Your task to perform on an android device: Open Youtube and go to the subscriptions tab Image 0: 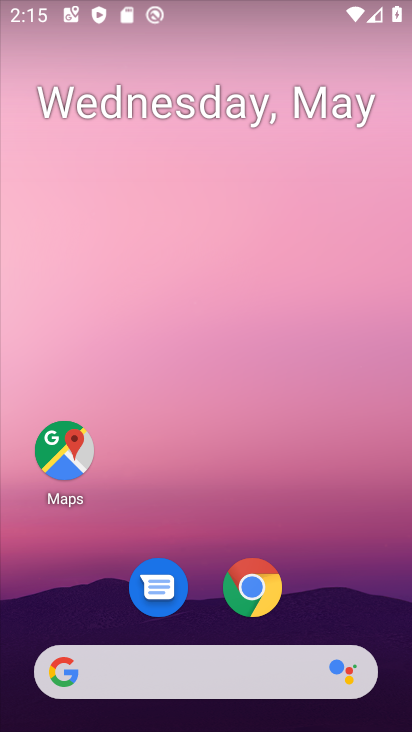
Step 0: drag from (368, 621) to (294, 8)
Your task to perform on an android device: Open Youtube and go to the subscriptions tab Image 1: 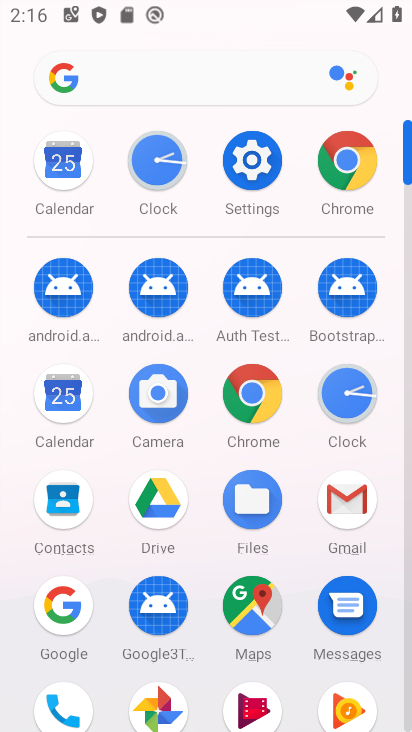
Step 1: drag from (197, 571) to (207, 31)
Your task to perform on an android device: Open Youtube and go to the subscriptions tab Image 2: 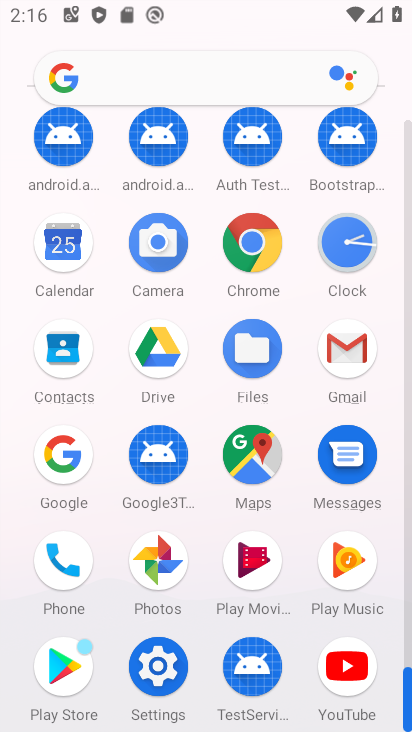
Step 2: click (340, 669)
Your task to perform on an android device: Open Youtube and go to the subscriptions tab Image 3: 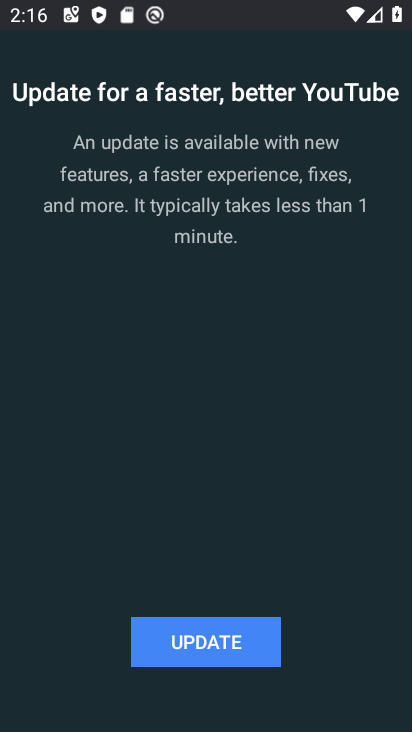
Step 3: click (242, 667)
Your task to perform on an android device: Open Youtube and go to the subscriptions tab Image 4: 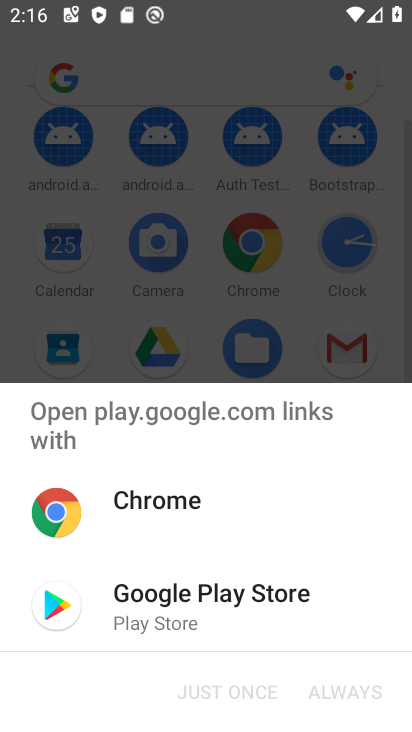
Step 4: click (261, 609)
Your task to perform on an android device: Open Youtube and go to the subscriptions tab Image 5: 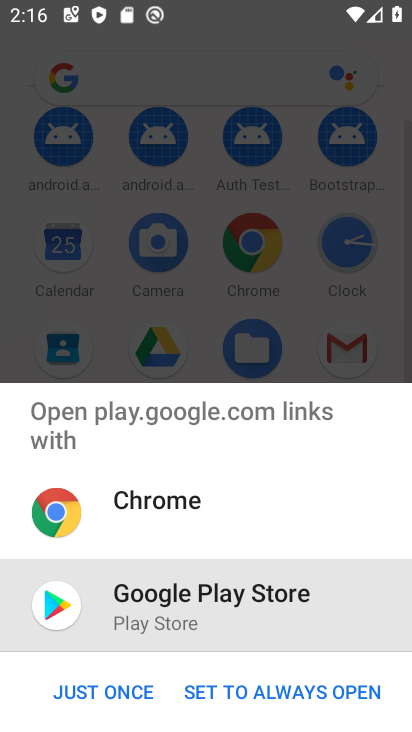
Step 5: click (124, 689)
Your task to perform on an android device: Open Youtube and go to the subscriptions tab Image 6: 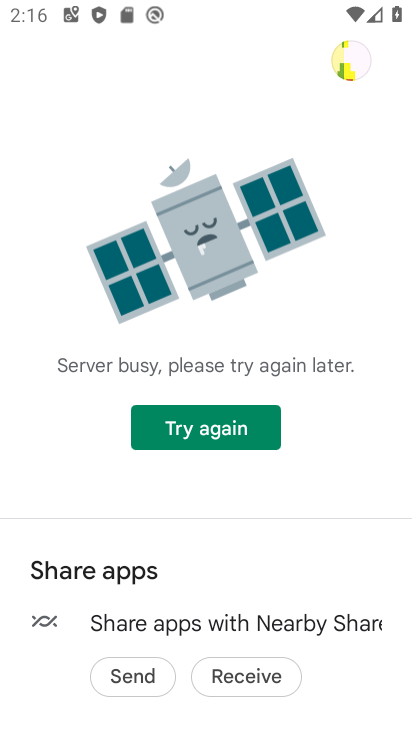
Step 6: click (226, 416)
Your task to perform on an android device: Open Youtube and go to the subscriptions tab Image 7: 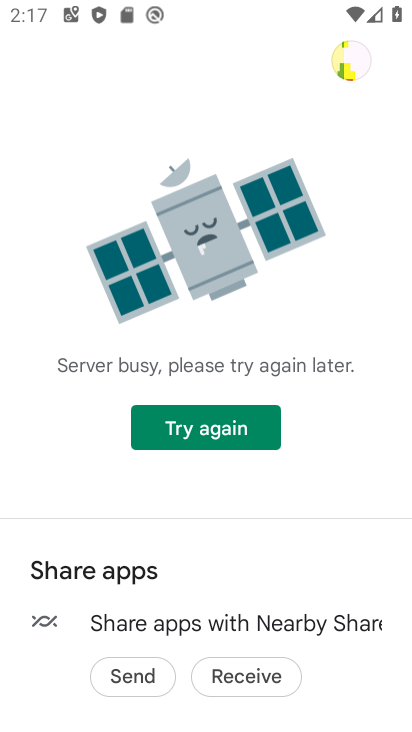
Step 7: click (248, 411)
Your task to perform on an android device: Open Youtube and go to the subscriptions tab Image 8: 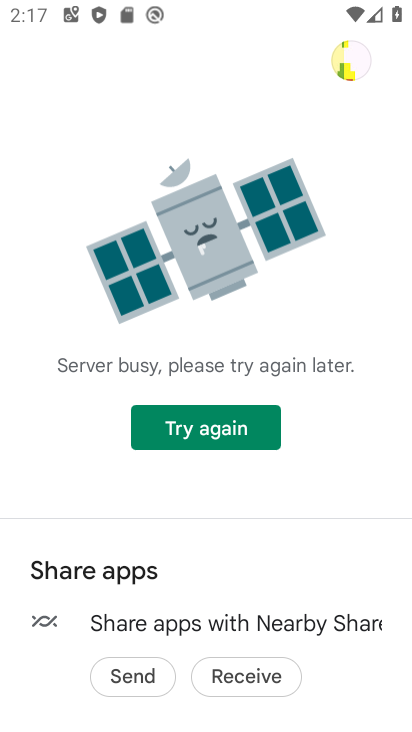
Step 8: task complete